Your task to perform on an android device: change notifications settings Image 0: 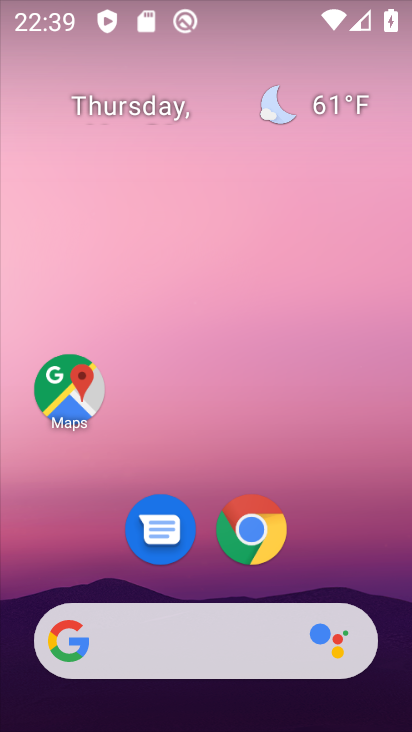
Step 0: drag from (365, 569) to (275, 179)
Your task to perform on an android device: change notifications settings Image 1: 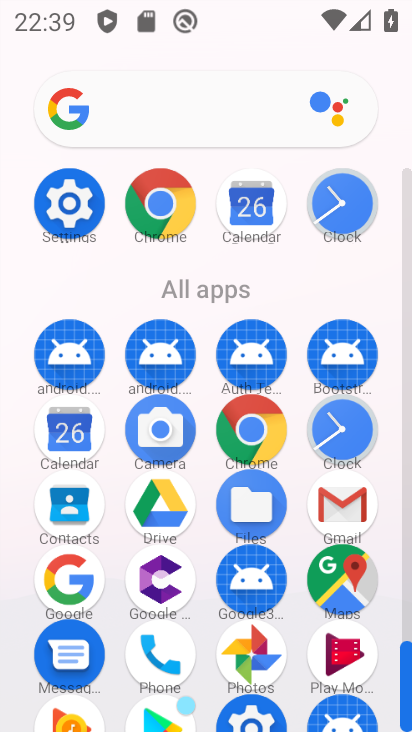
Step 1: click (70, 232)
Your task to perform on an android device: change notifications settings Image 2: 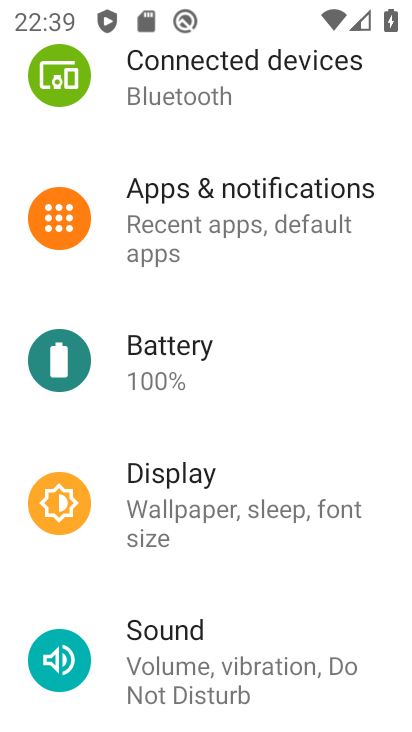
Step 2: click (208, 251)
Your task to perform on an android device: change notifications settings Image 3: 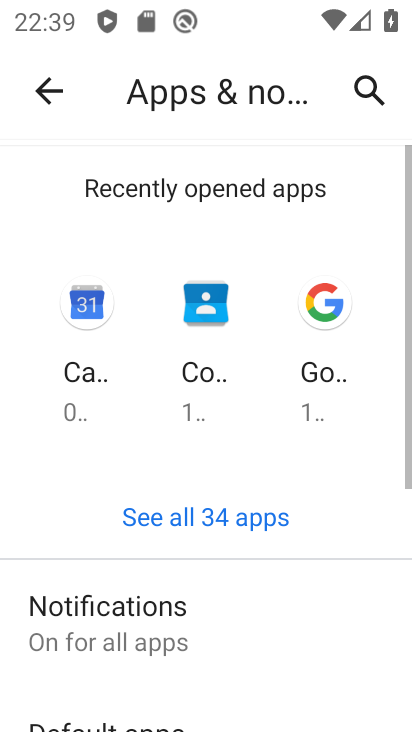
Step 3: task complete